Your task to perform on an android device: Go to Google maps Image 0: 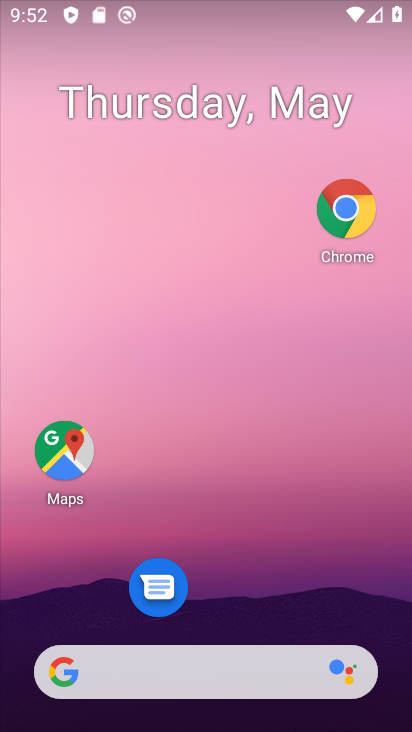
Step 0: click (53, 442)
Your task to perform on an android device: Go to Google maps Image 1: 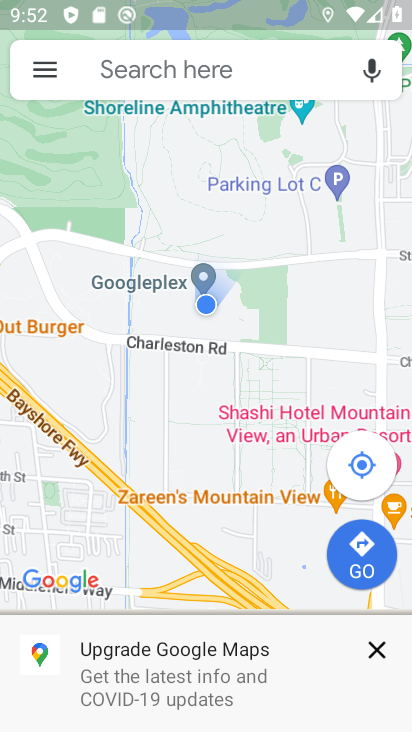
Step 1: click (42, 56)
Your task to perform on an android device: Go to Google maps Image 2: 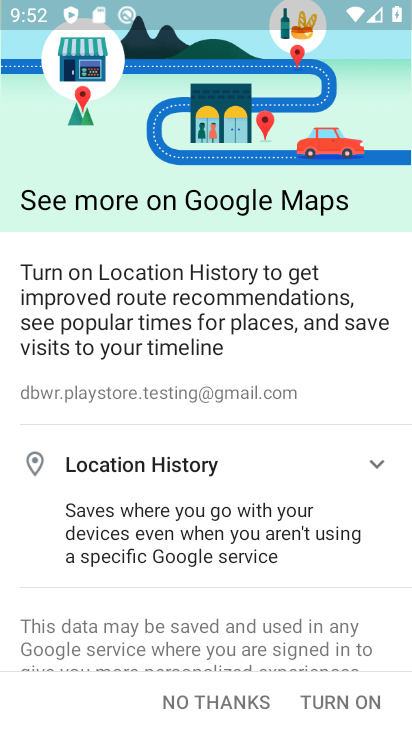
Step 2: task complete